Your task to perform on an android device: Open sound settings Image 0: 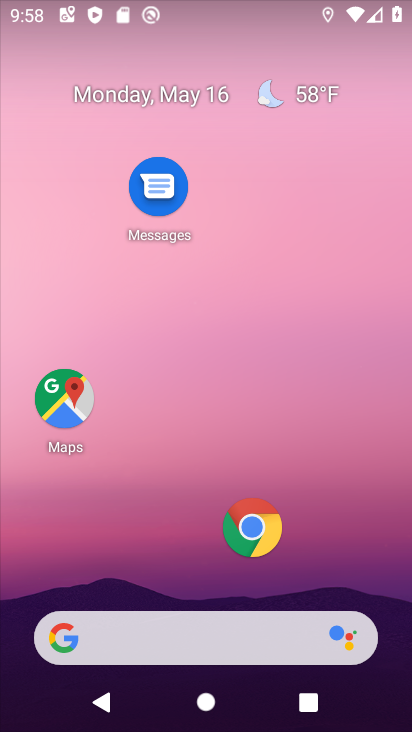
Step 0: drag from (173, 548) to (186, 83)
Your task to perform on an android device: Open sound settings Image 1: 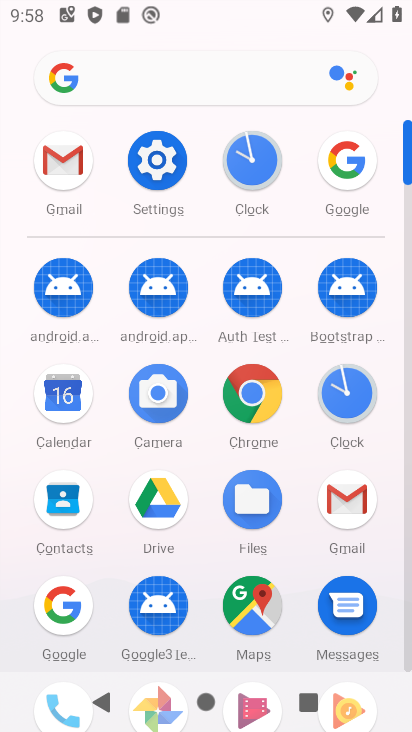
Step 1: click (150, 161)
Your task to perform on an android device: Open sound settings Image 2: 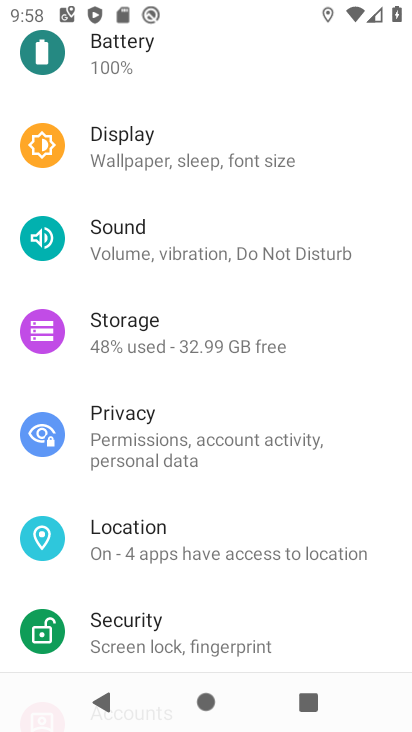
Step 2: click (147, 230)
Your task to perform on an android device: Open sound settings Image 3: 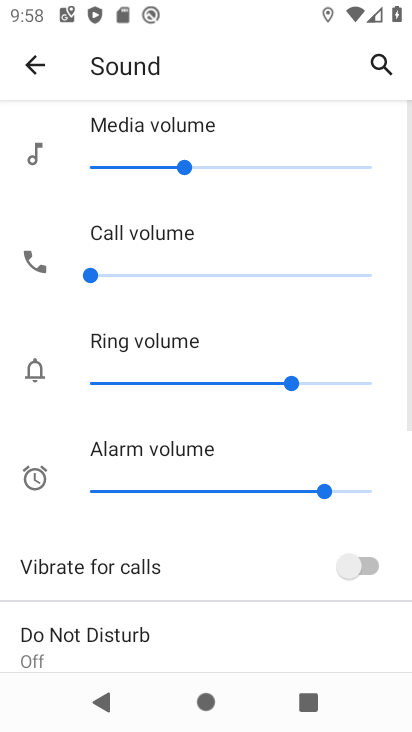
Step 3: task complete